Your task to perform on an android device: Is it going to rain tomorrow? Image 0: 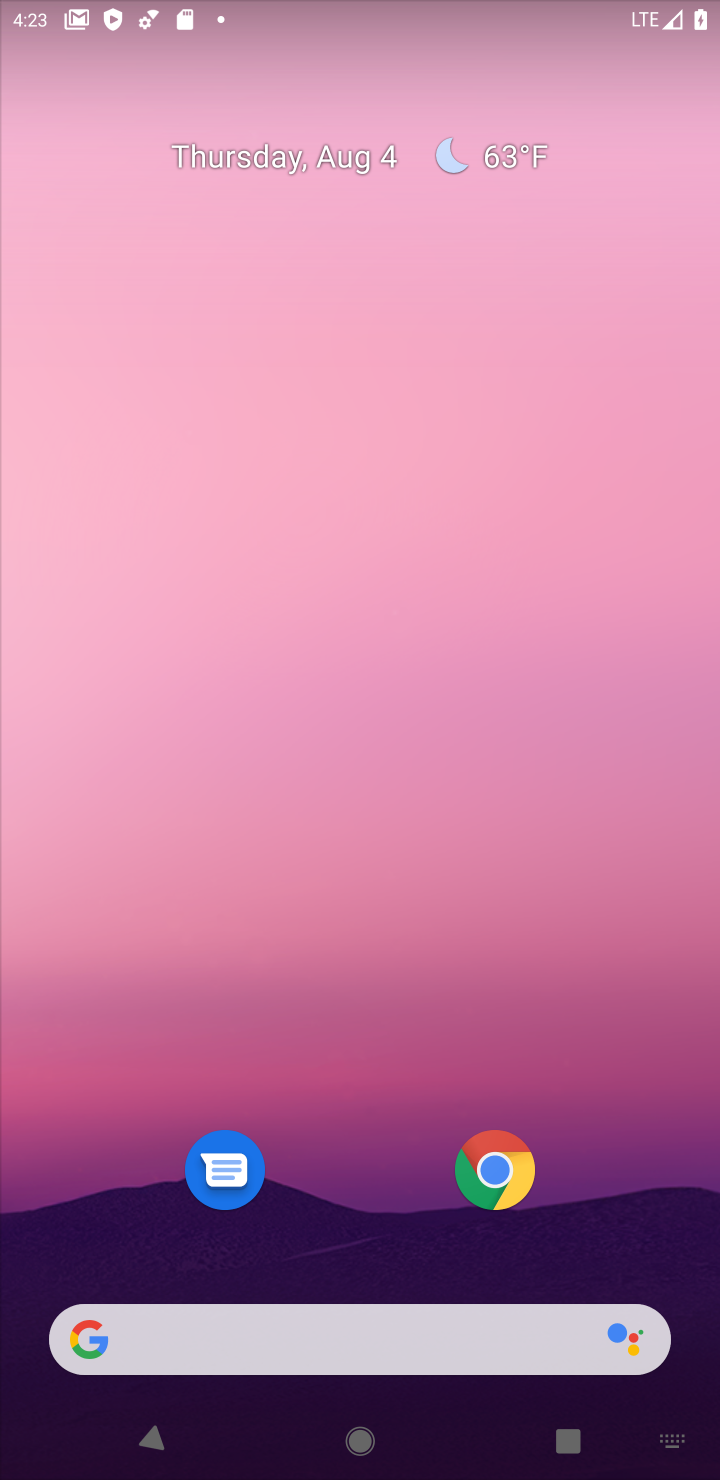
Step 0: click (473, 1178)
Your task to perform on an android device: Is it going to rain tomorrow? Image 1: 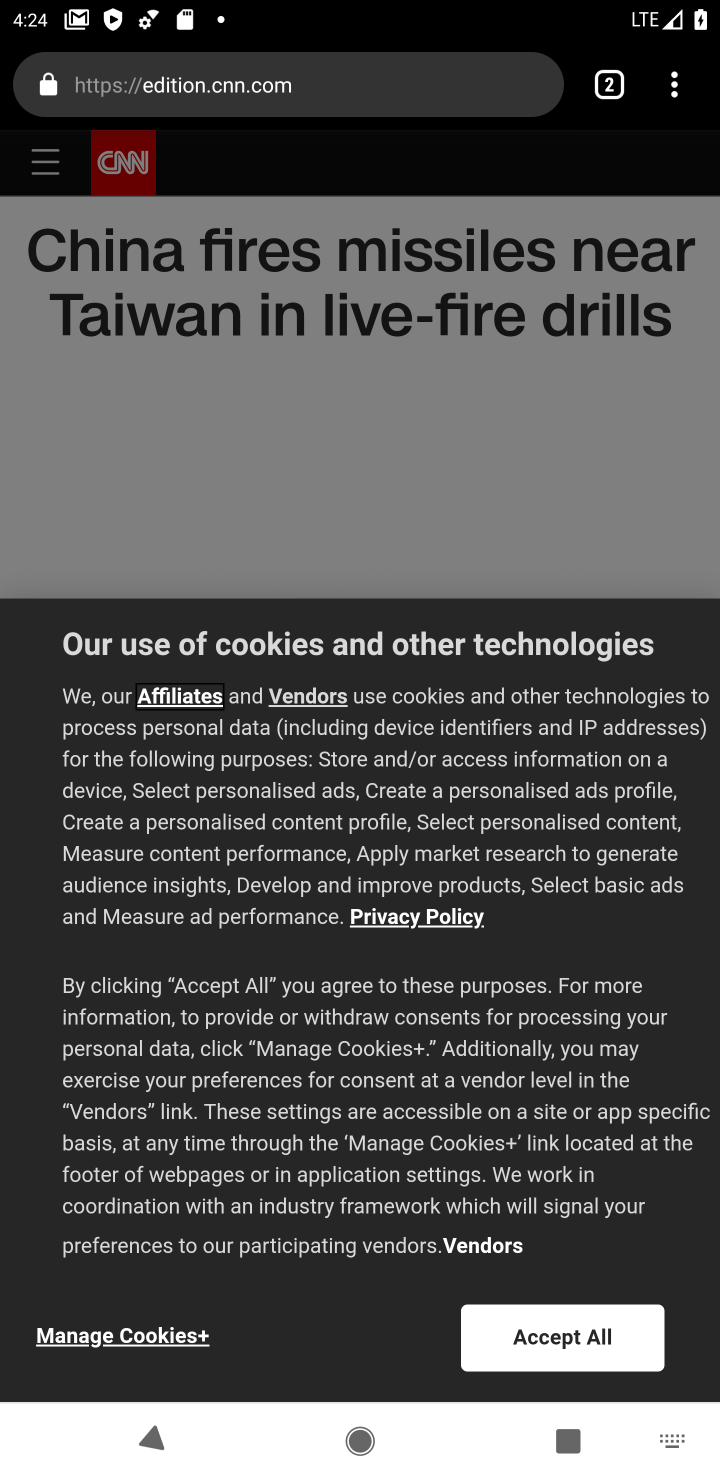
Step 1: click (283, 77)
Your task to perform on an android device: Is it going to rain tomorrow? Image 2: 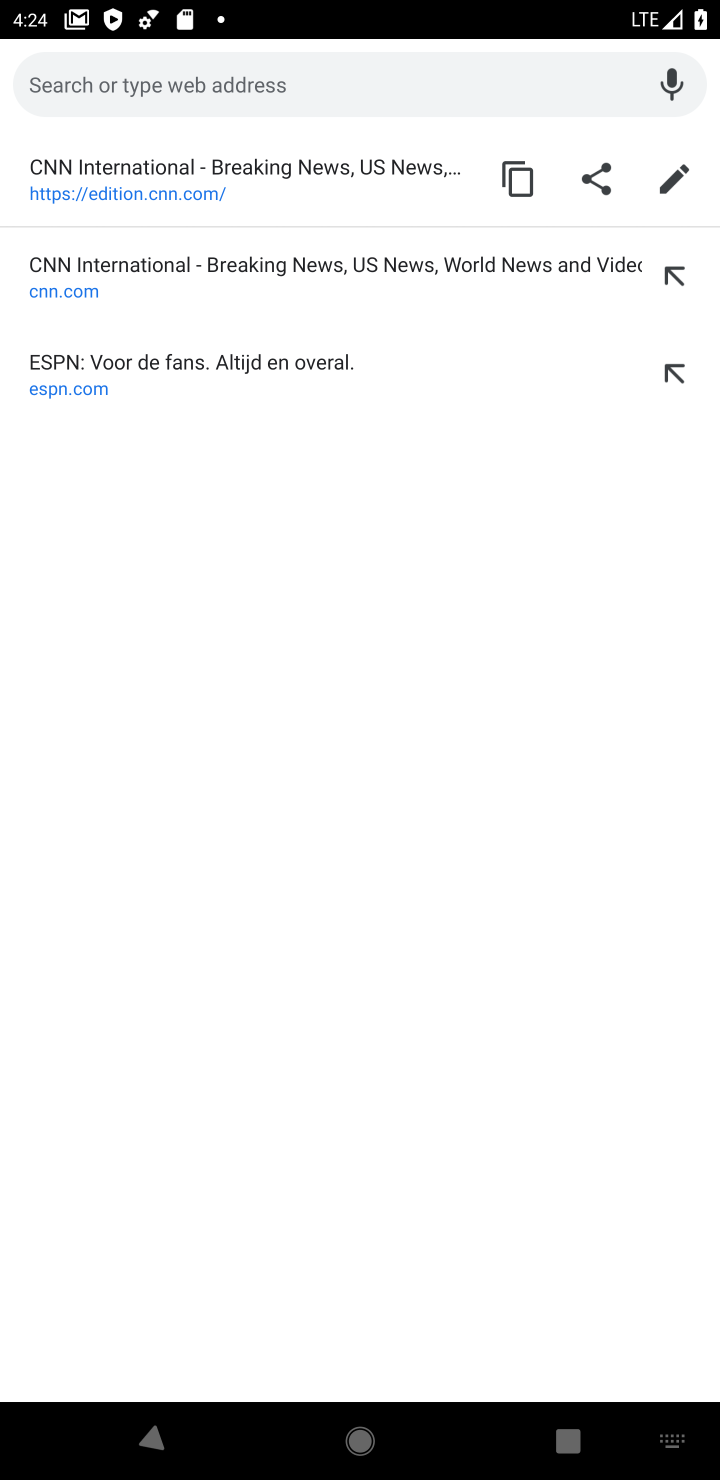
Step 2: type "Is it going to rain tomorrow?"
Your task to perform on an android device: Is it going to rain tomorrow? Image 3: 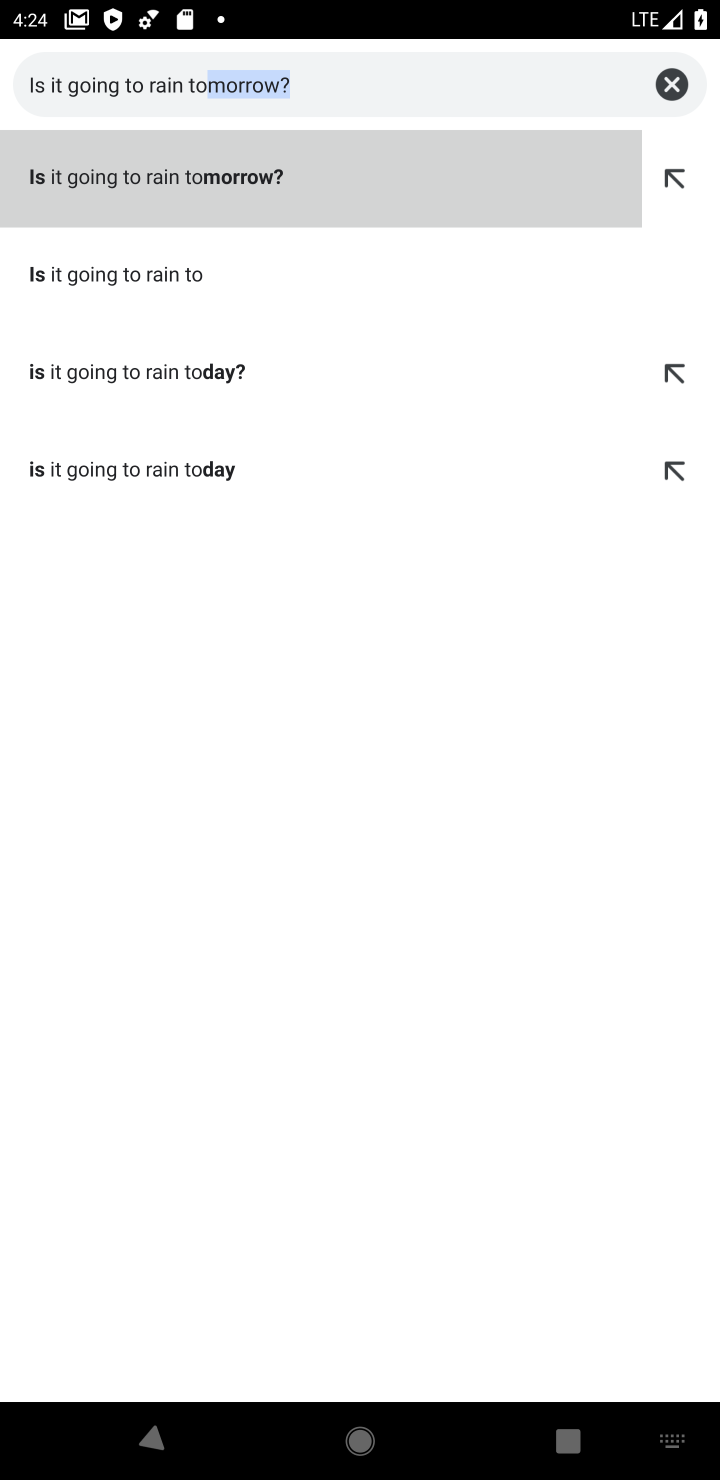
Step 3: click (373, 203)
Your task to perform on an android device: Is it going to rain tomorrow? Image 4: 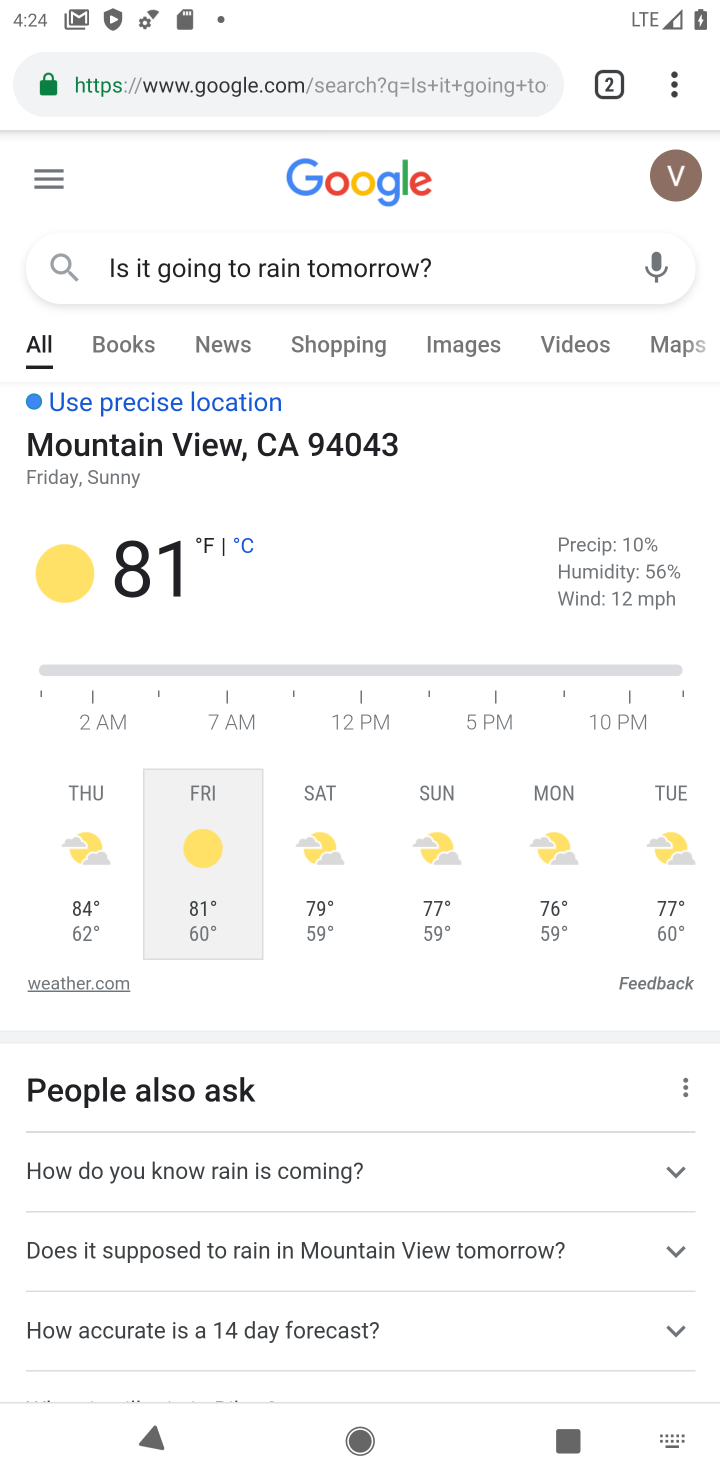
Step 4: task complete